Your task to perform on an android device: delete browsing data in the chrome app Image 0: 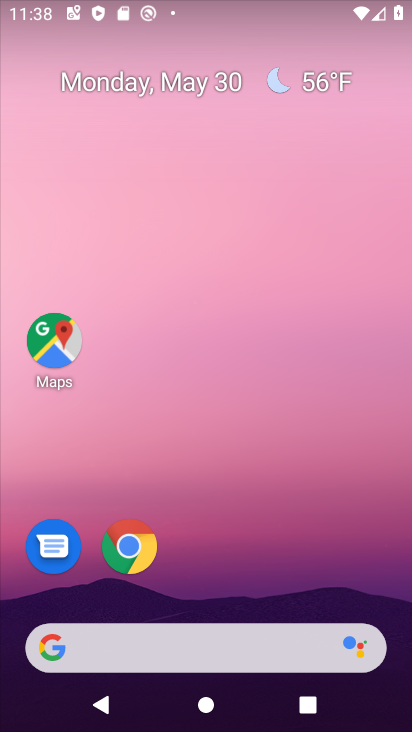
Step 0: click (128, 550)
Your task to perform on an android device: delete browsing data in the chrome app Image 1: 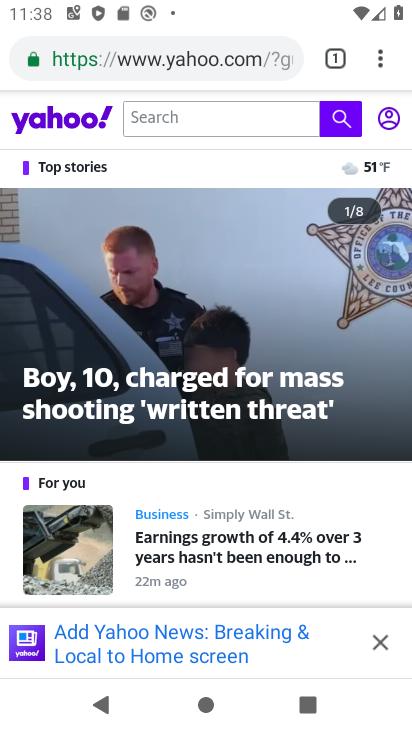
Step 1: click (379, 60)
Your task to perform on an android device: delete browsing data in the chrome app Image 2: 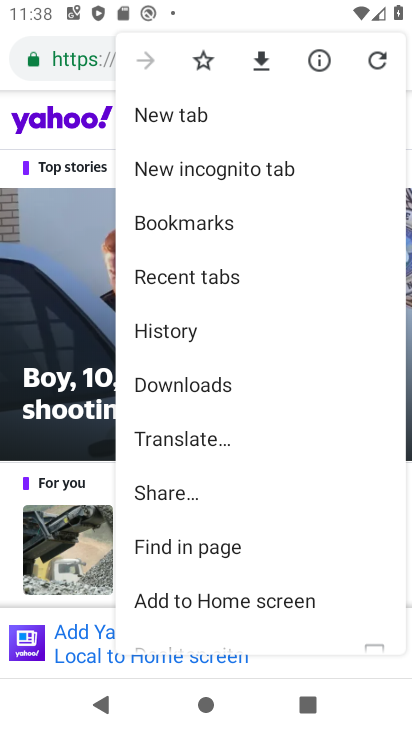
Step 2: drag from (198, 509) to (264, 424)
Your task to perform on an android device: delete browsing data in the chrome app Image 3: 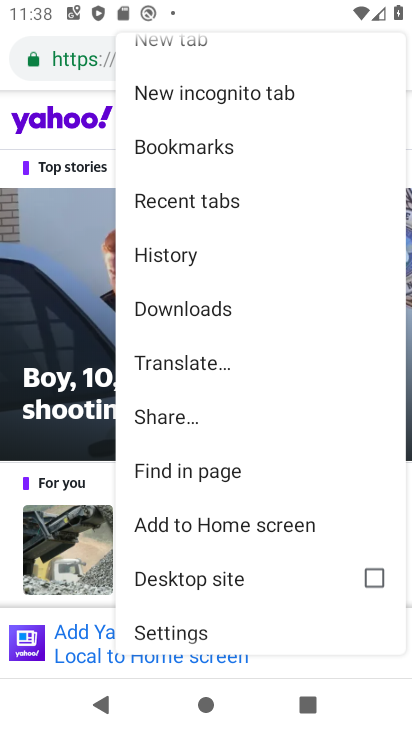
Step 3: drag from (201, 495) to (290, 386)
Your task to perform on an android device: delete browsing data in the chrome app Image 4: 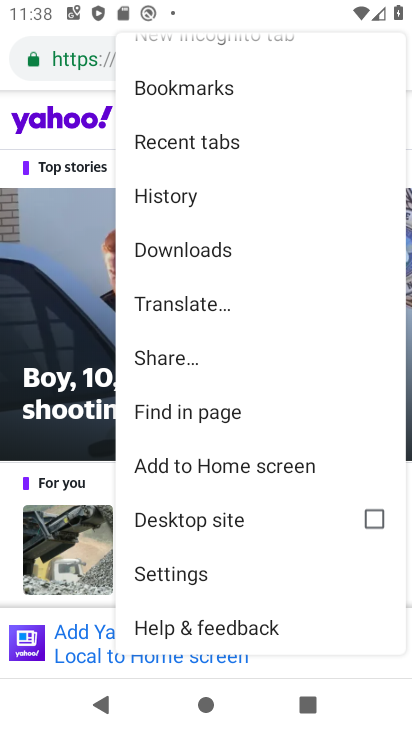
Step 4: click (177, 570)
Your task to perform on an android device: delete browsing data in the chrome app Image 5: 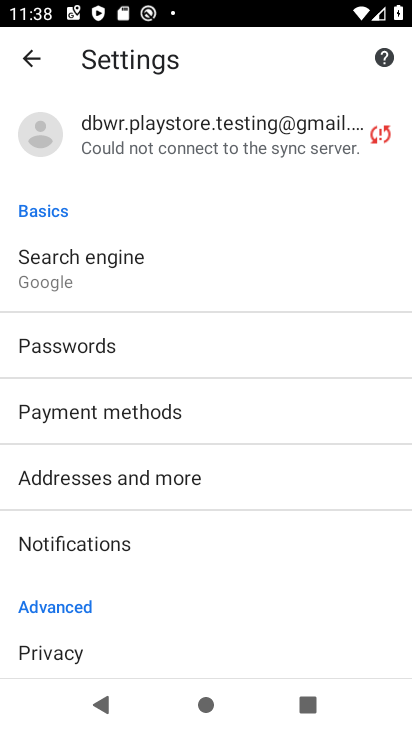
Step 5: click (67, 652)
Your task to perform on an android device: delete browsing data in the chrome app Image 6: 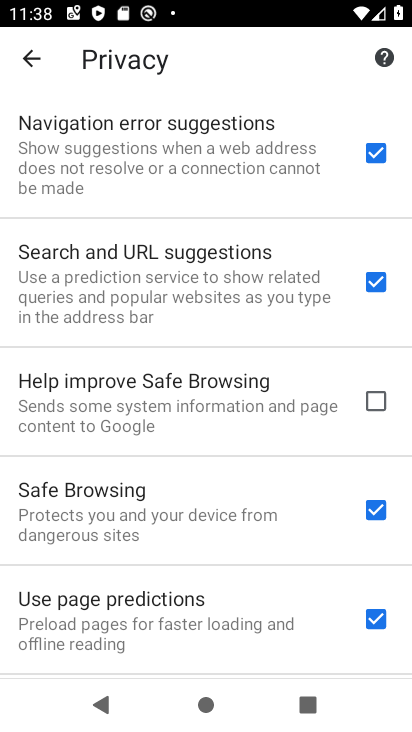
Step 6: drag from (184, 573) to (230, 480)
Your task to perform on an android device: delete browsing data in the chrome app Image 7: 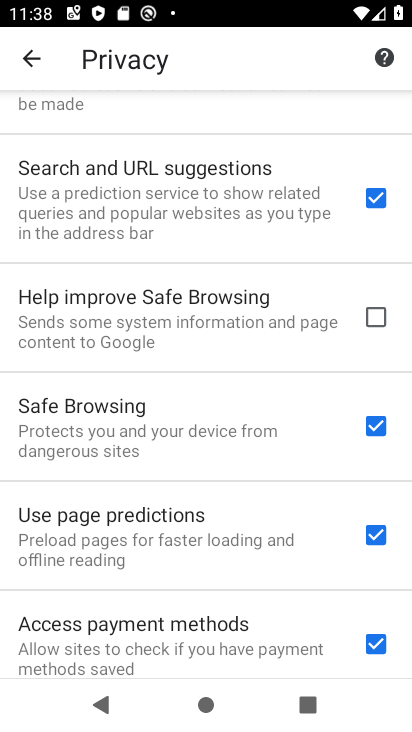
Step 7: drag from (144, 655) to (197, 545)
Your task to perform on an android device: delete browsing data in the chrome app Image 8: 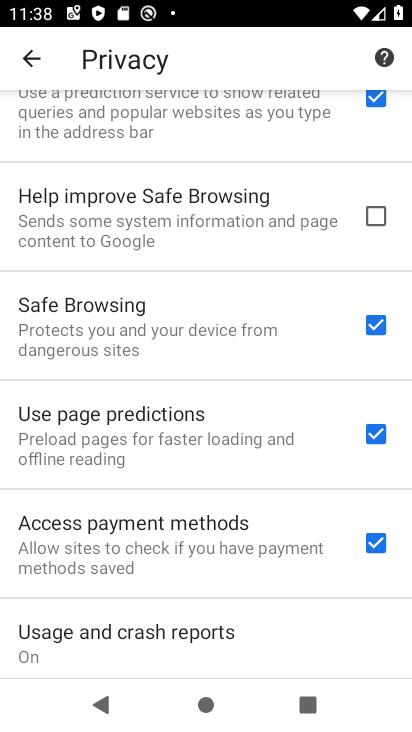
Step 8: drag from (127, 651) to (221, 509)
Your task to perform on an android device: delete browsing data in the chrome app Image 9: 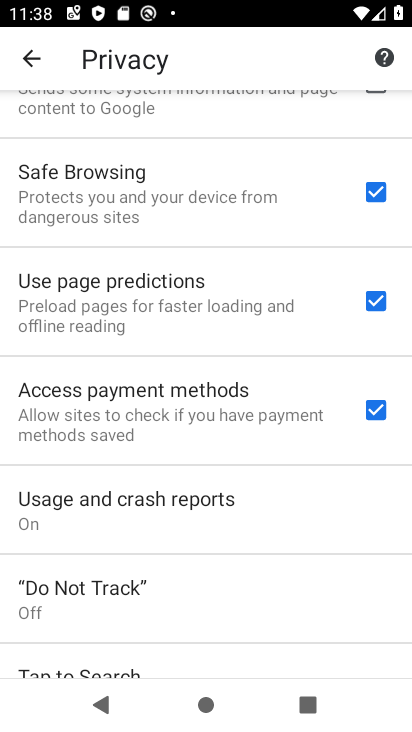
Step 9: drag from (149, 614) to (263, 492)
Your task to perform on an android device: delete browsing data in the chrome app Image 10: 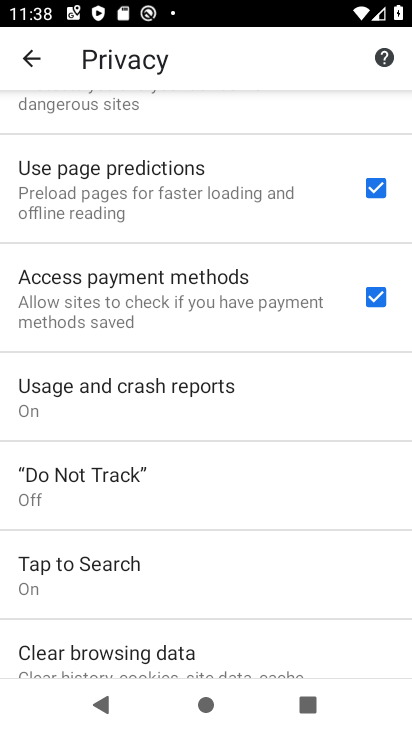
Step 10: drag from (168, 604) to (281, 489)
Your task to perform on an android device: delete browsing data in the chrome app Image 11: 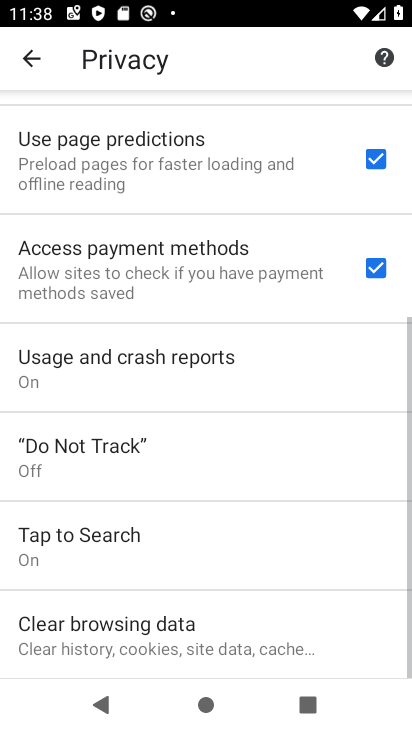
Step 11: click (170, 639)
Your task to perform on an android device: delete browsing data in the chrome app Image 12: 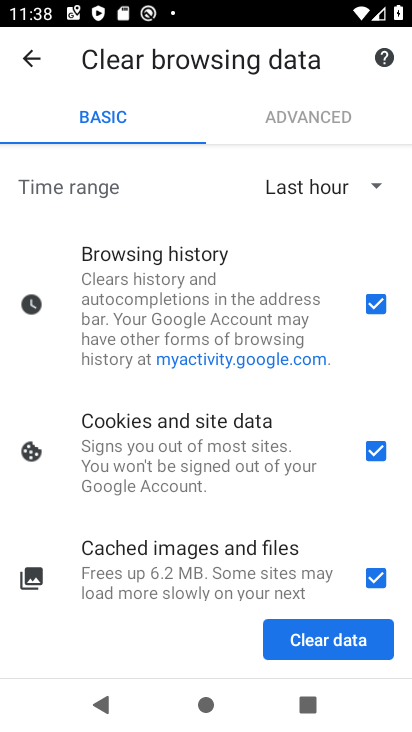
Step 12: click (326, 643)
Your task to perform on an android device: delete browsing data in the chrome app Image 13: 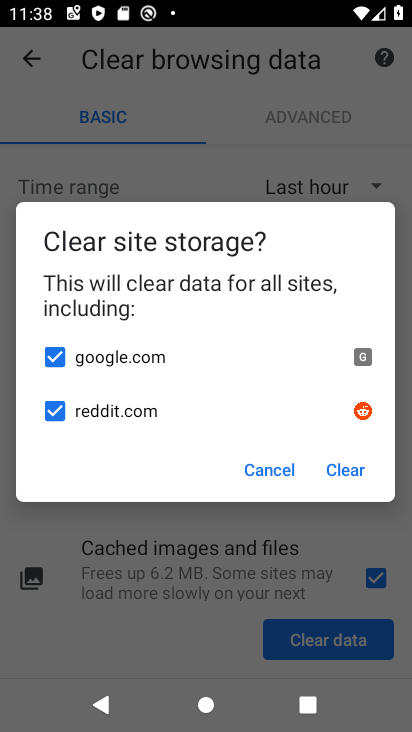
Step 13: click (332, 466)
Your task to perform on an android device: delete browsing data in the chrome app Image 14: 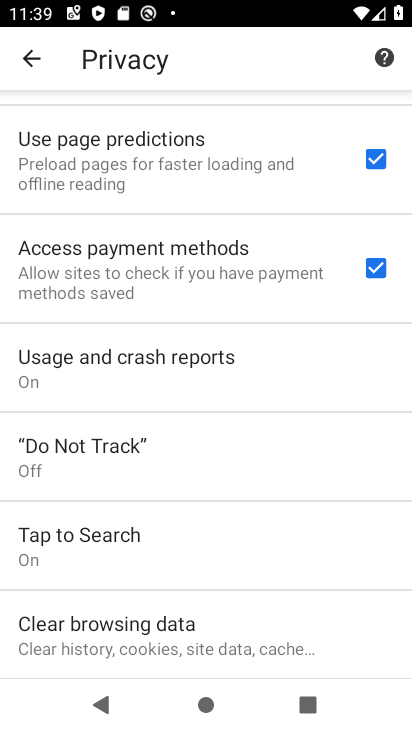
Step 14: task complete